Your task to perform on an android device: change your default location settings in chrome Image 0: 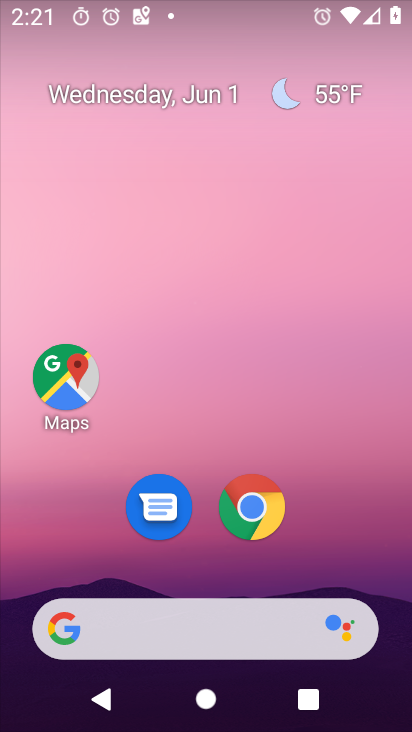
Step 0: click (257, 520)
Your task to perform on an android device: change your default location settings in chrome Image 1: 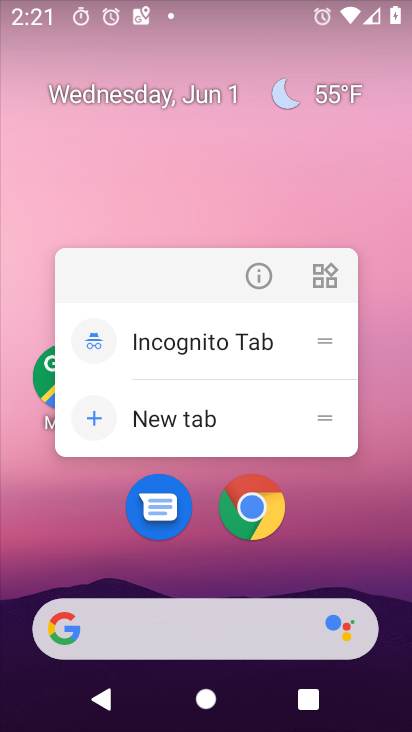
Step 1: click (257, 520)
Your task to perform on an android device: change your default location settings in chrome Image 2: 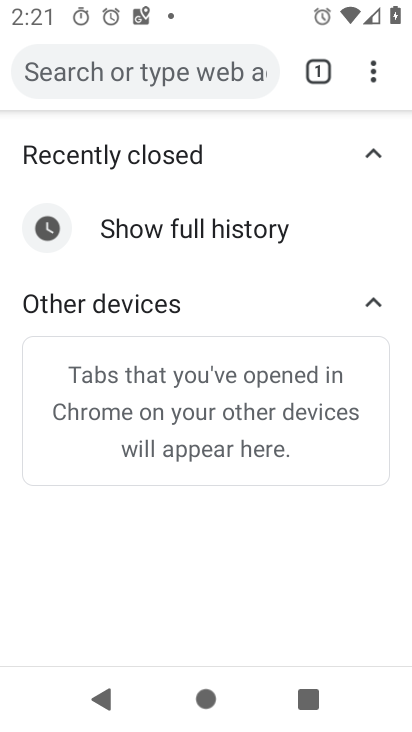
Step 2: click (370, 70)
Your task to perform on an android device: change your default location settings in chrome Image 3: 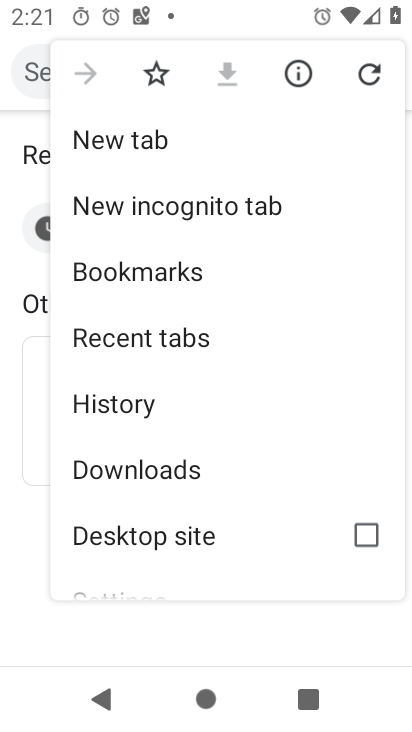
Step 3: drag from (261, 539) to (278, 213)
Your task to perform on an android device: change your default location settings in chrome Image 4: 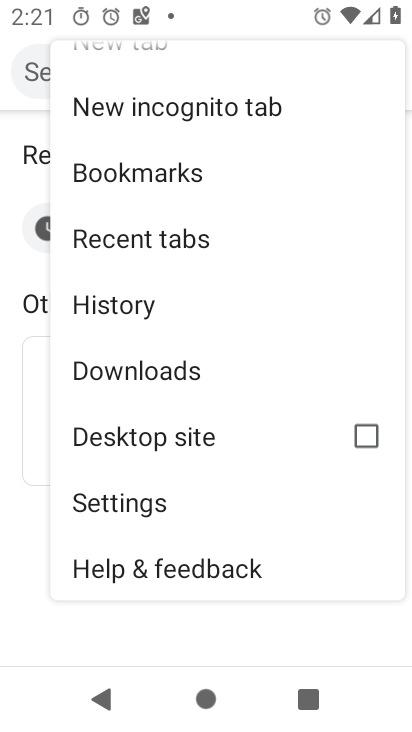
Step 4: click (127, 507)
Your task to perform on an android device: change your default location settings in chrome Image 5: 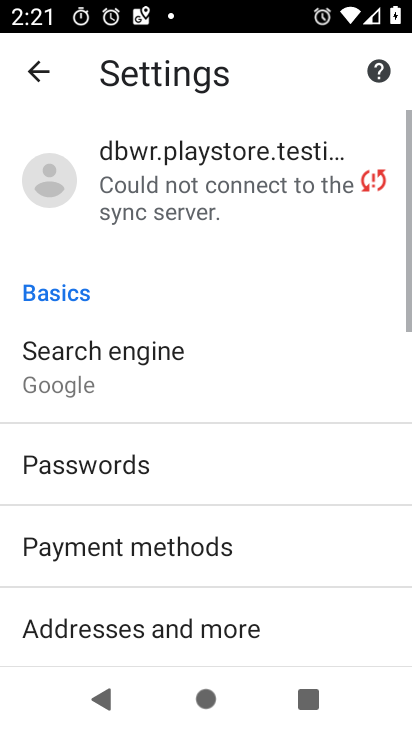
Step 5: drag from (261, 561) to (255, 186)
Your task to perform on an android device: change your default location settings in chrome Image 6: 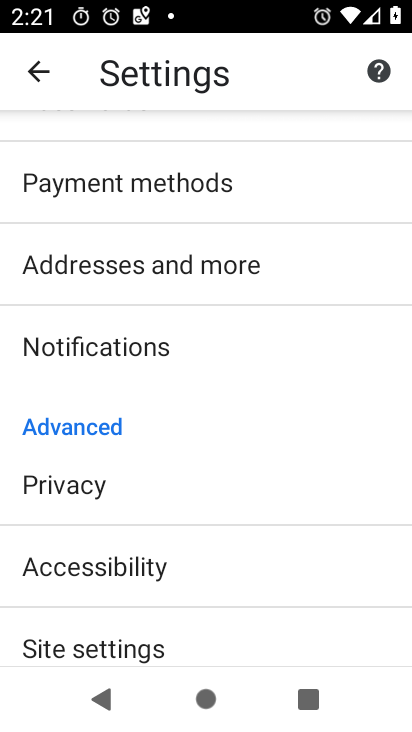
Step 6: drag from (203, 550) to (207, 271)
Your task to perform on an android device: change your default location settings in chrome Image 7: 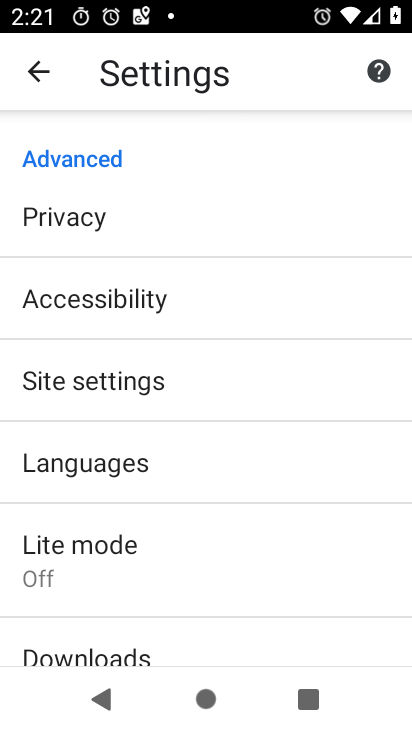
Step 7: click (120, 389)
Your task to perform on an android device: change your default location settings in chrome Image 8: 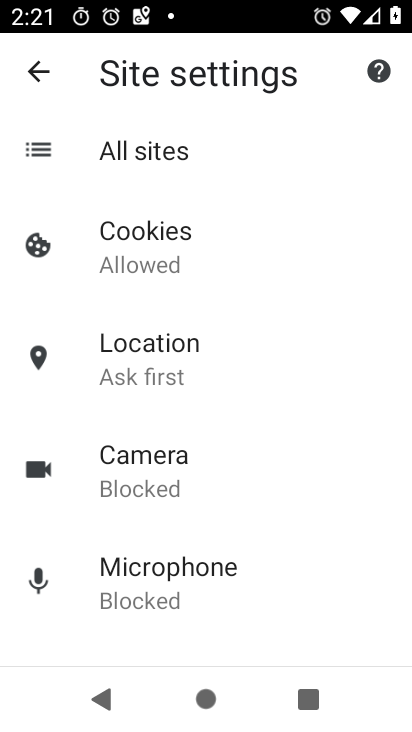
Step 8: click (143, 371)
Your task to perform on an android device: change your default location settings in chrome Image 9: 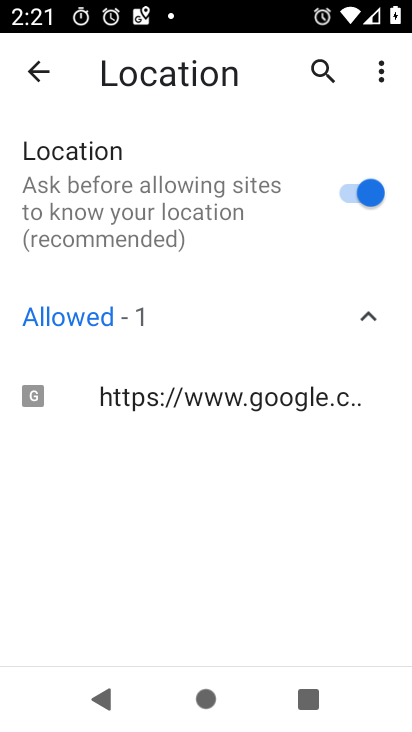
Step 9: click (362, 197)
Your task to perform on an android device: change your default location settings in chrome Image 10: 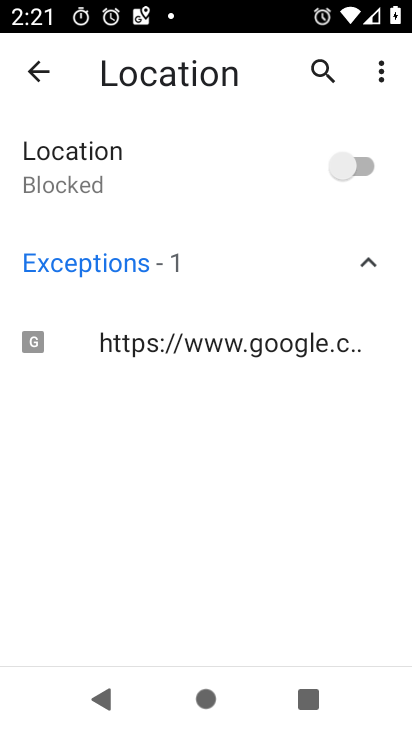
Step 10: task complete